Your task to perform on an android device: add a contact in the contacts app Image 0: 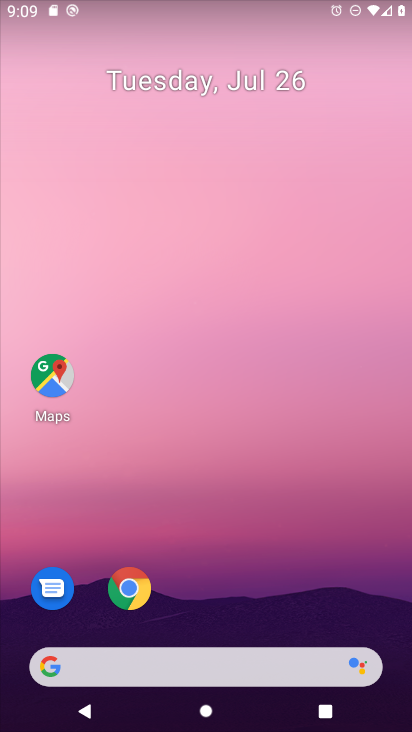
Step 0: drag from (170, 386) to (170, 175)
Your task to perform on an android device: add a contact in the contacts app Image 1: 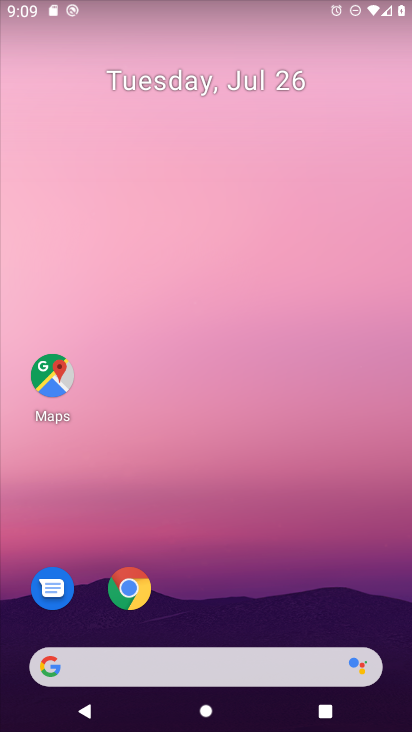
Step 1: drag from (215, 677) to (246, 130)
Your task to perform on an android device: add a contact in the contacts app Image 2: 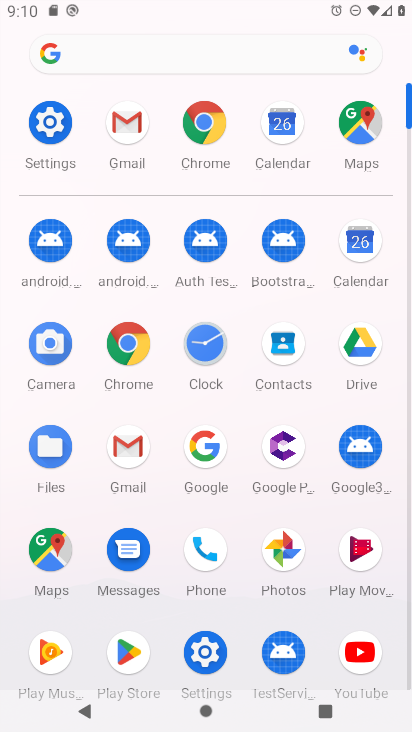
Step 2: click (286, 355)
Your task to perform on an android device: add a contact in the contacts app Image 3: 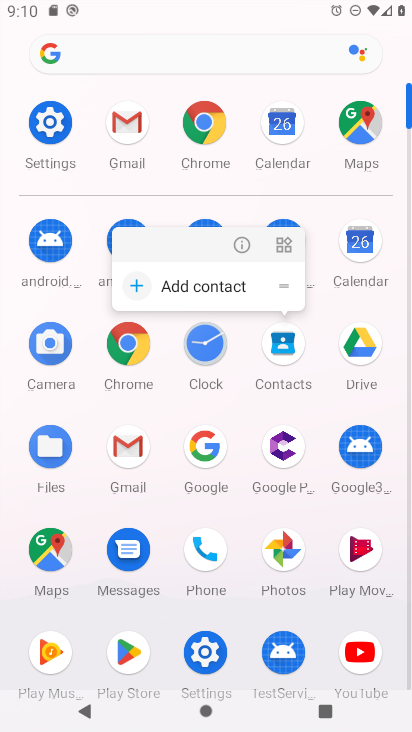
Step 3: click (277, 373)
Your task to perform on an android device: add a contact in the contacts app Image 4: 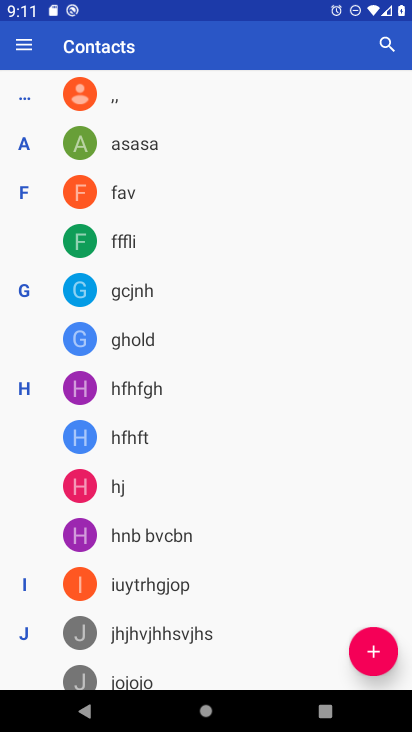
Step 4: click (378, 644)
Your task to perform on an android device: add a contact in the contacts app Image 5: 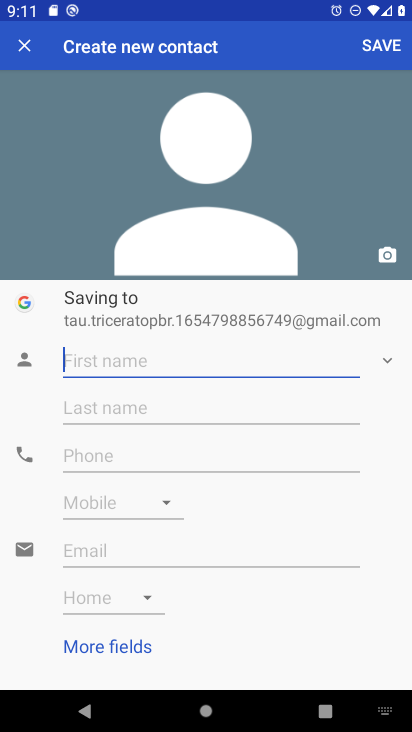
Step 5: type "yutrsx"
Your task to perform on an android device: add a contact in the contacts app Image 6: 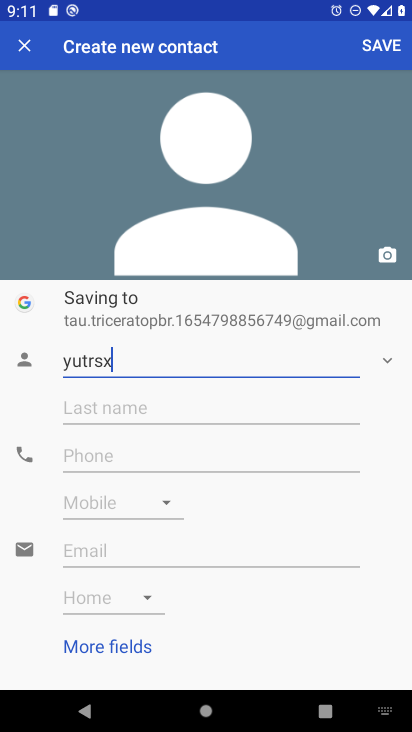
Step 6: click (209, 447)
Your task to perform on an android device: add a contact in the contacts app Image 7: 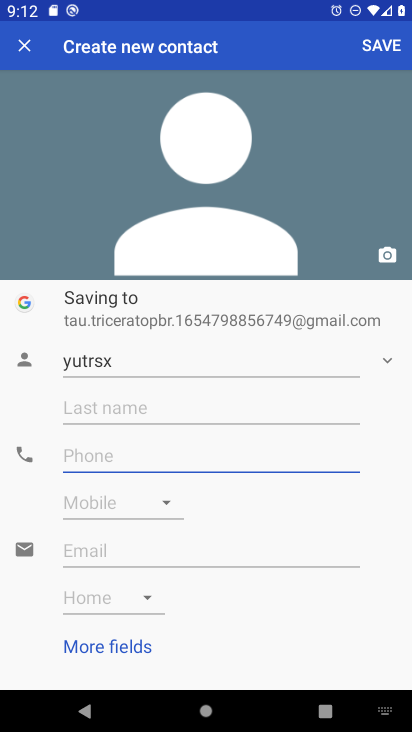
Step 7: type "986545323"
Your task to perform on an android device: add a contact in the contacts app Image 8: 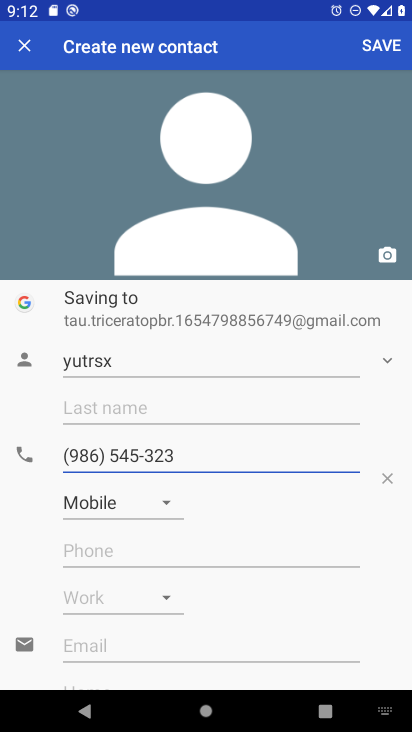
Step 8: click (387, 51)
Your task to perform on an android device: add a contact in the contacts app Image 9: 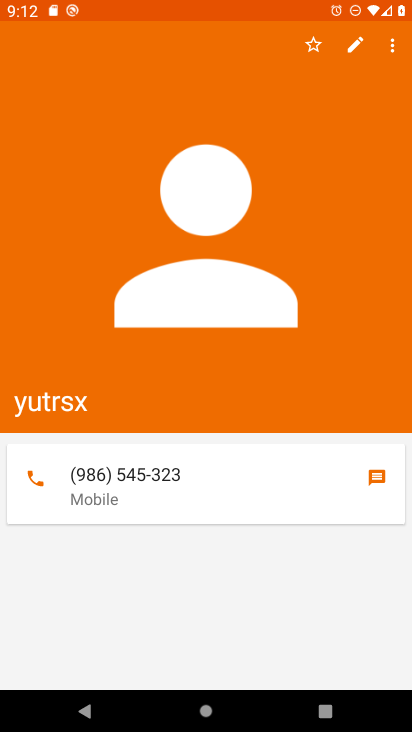
Step 9: task complete